Your task to perform on an android device: Open CNN.com Image 0: 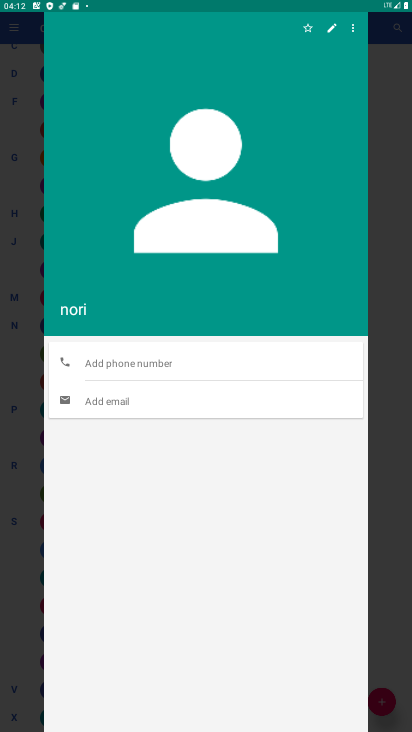
Step 0: press home button
Your task to perform on an android device: Open CNN.com Image 1: 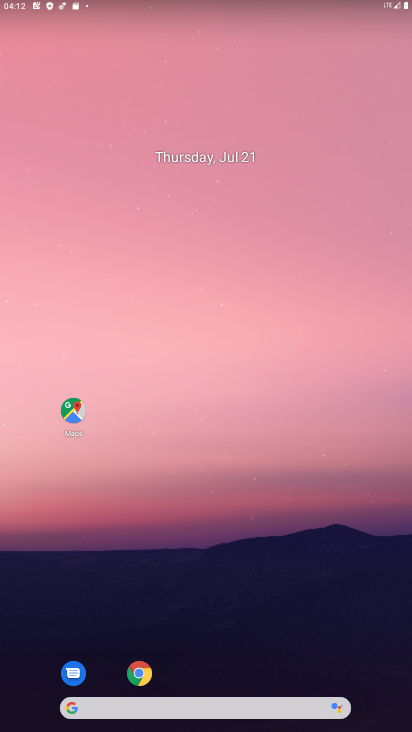
Step 1: drag from (297, 567) to (253, 81)
Your task to perform on an android device: Open CNN.com Image 2: 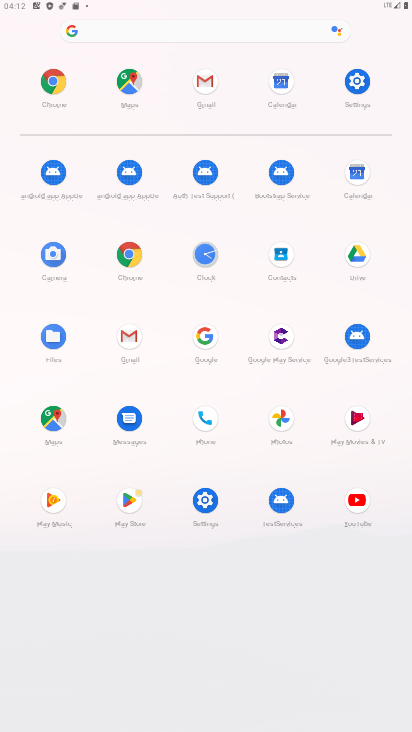
Step 2: click (54, 76)
Your task to perform on an android device: Open CNN.com Image 3: 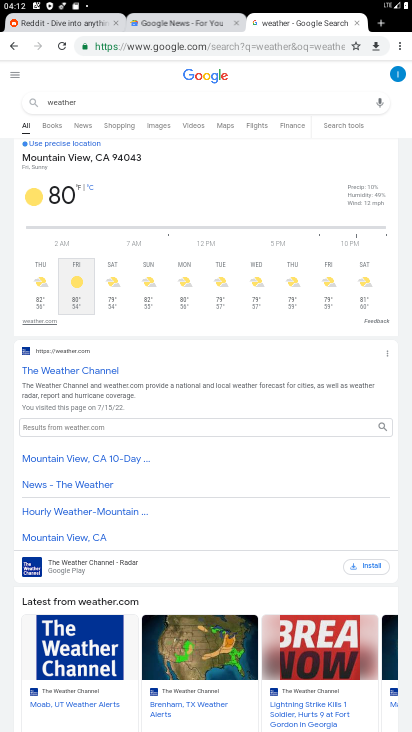
Step 3: click (234, 41)
Your task to perform on an android device: Open CNN.com Image 4: 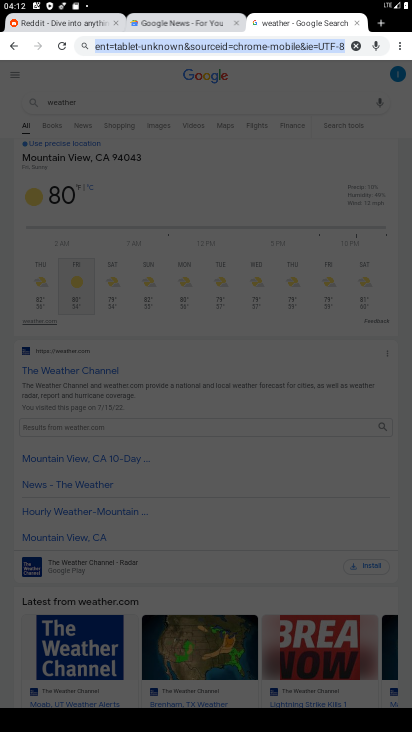
Step 4: type "cnn.com"
Your task to perform on an android device: Open CNN.com Image 5: 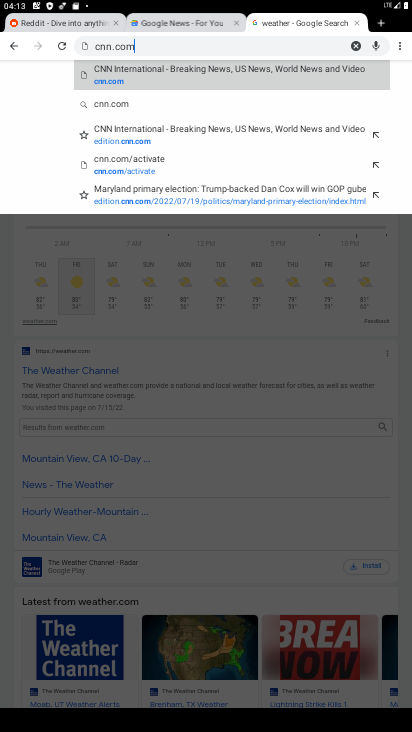
Step 5: click (146, 68)
Your task to perform on an android device: Open CNN.com Image 6: 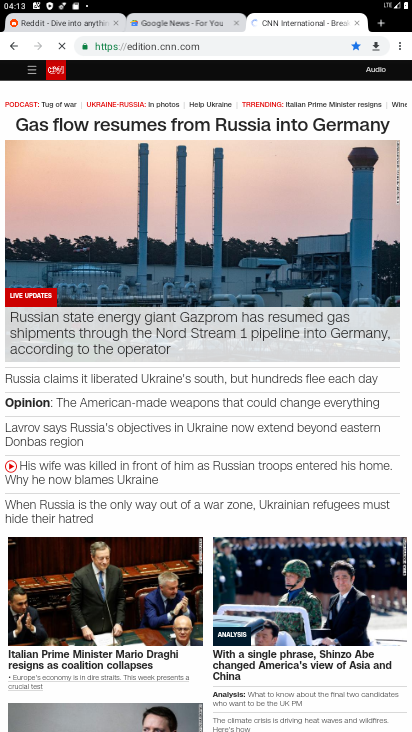
Step 6: task complete